Your task to perform on an android device: all mails in gmail Image 0: 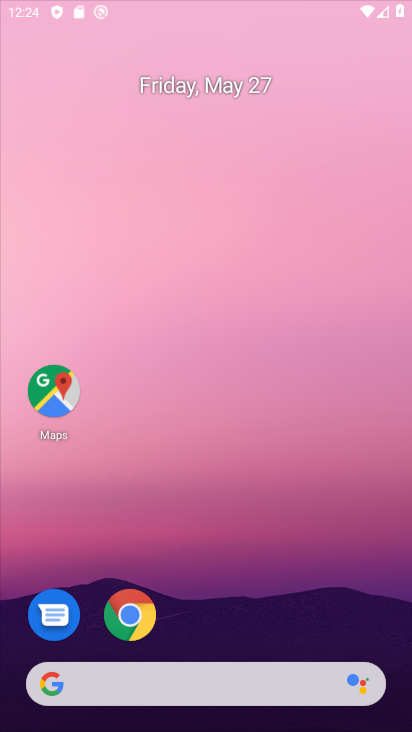
Step 0: press home button
Your task to perform on an android device: all mails in gmail Image 1: 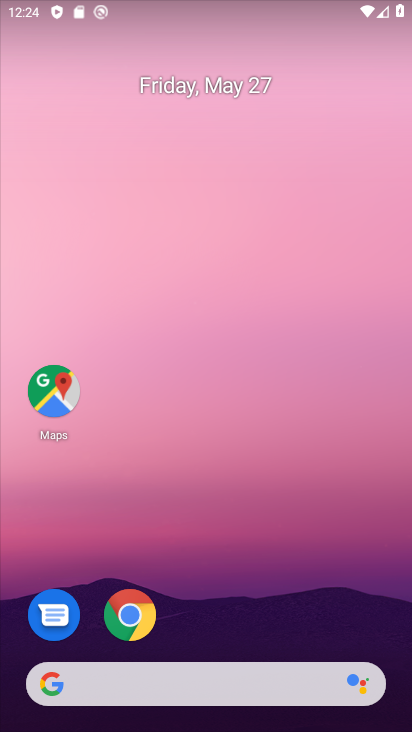
Step 1: drag from (216, 631) to (154, 89)
Your task to perform on an android device: all mails in gmail Image 2: 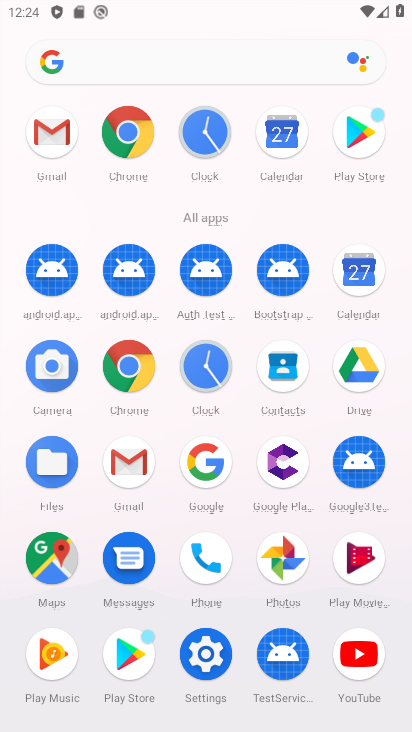
Step 2: click (41, 140)
Your task to perform on an android device: all mails in gmail Image 3: 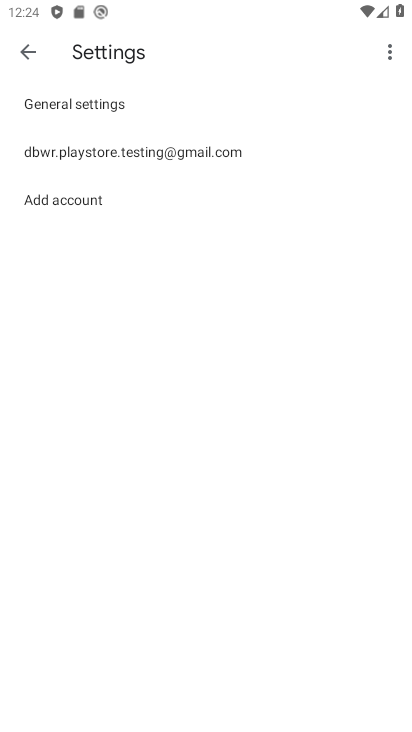
Step 3: click (32, 56)
Your task to perform on an android device: all mails in gmail Image 4: 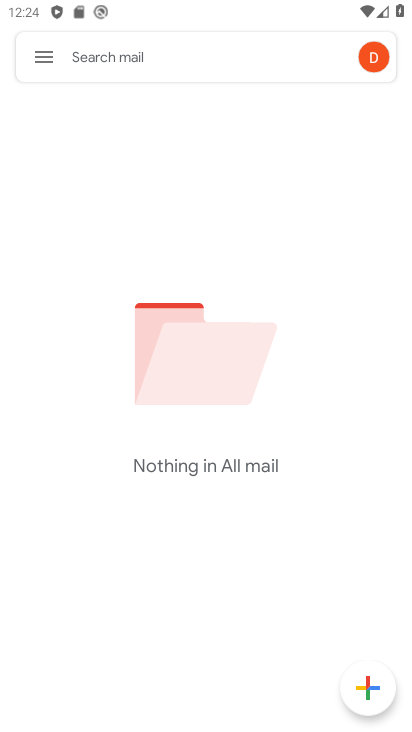
Step 4: click (32, 56)
Your task to perform on an android device: all mails in gmail Image 5: 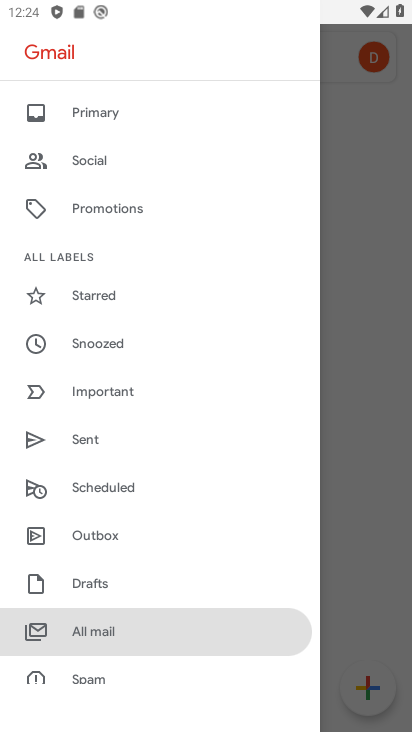
Step 5: click (89, 637)
Your task to perform on an android device: all mails in gmail Image 6: 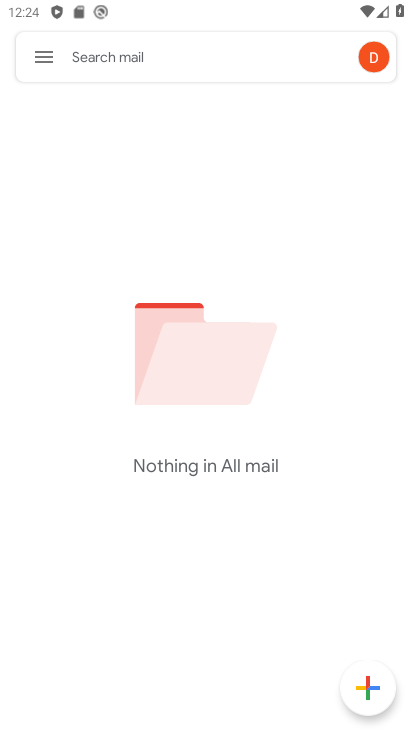
Step 6: task complete